Your task to perform on an android device: toggle pop-ups in chrome Image 0: 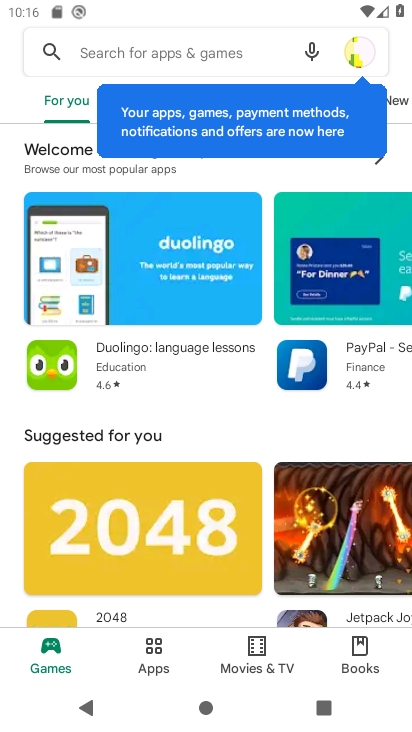
Step 0: press home button
Your task to perform on an android device: toggle pop-ups in chrome Image 1: 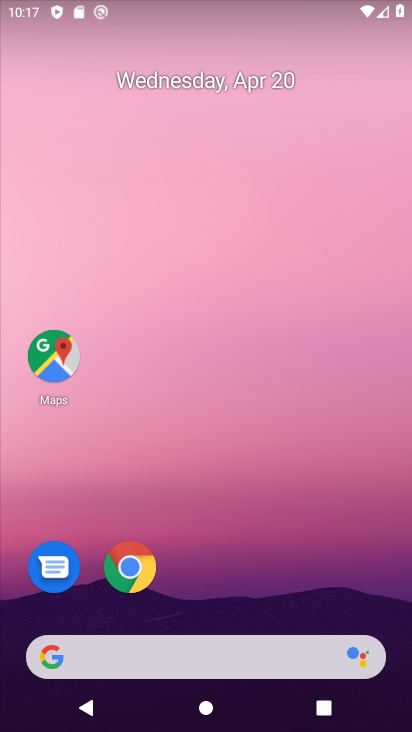
Step 1: click (127, 566)
Your task to perform on an android device: toggle pop-ups in chrome Image 2: 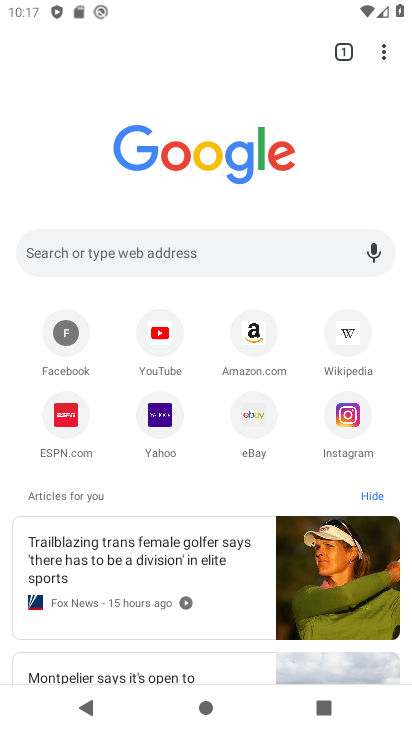
Step 2: click (385, 48)
Your task to perform on an android device: toggle pop-ups in chrome Image 3: 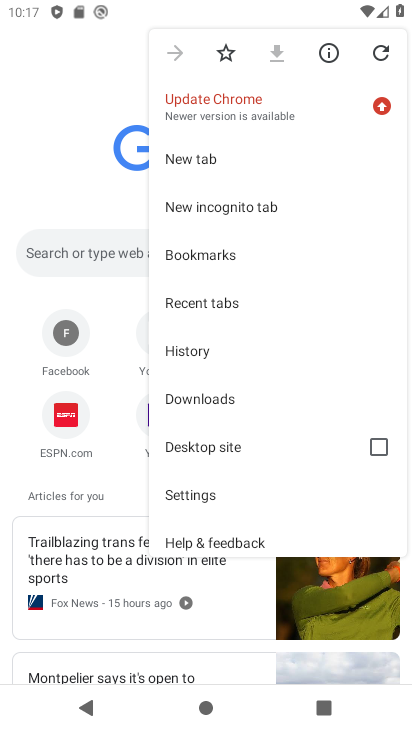
Step 3: click (202, 497)
Your task to perform on an android device: toggle pop-ups in chrome Image 4: 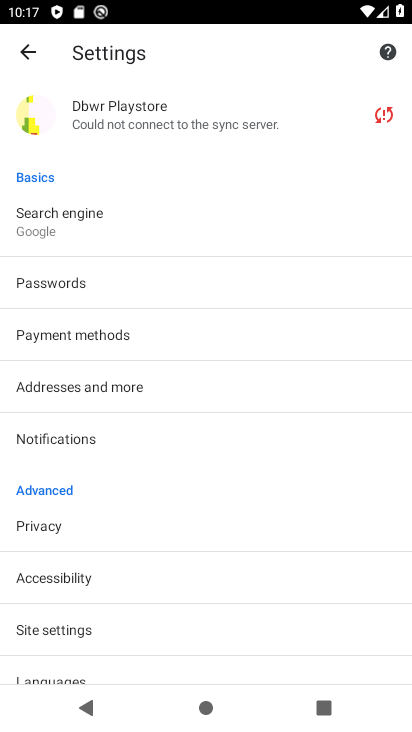
Step 4: click (73, 636)
Your task to perform on an android device: toggle pop-ups in chrome Image 5: 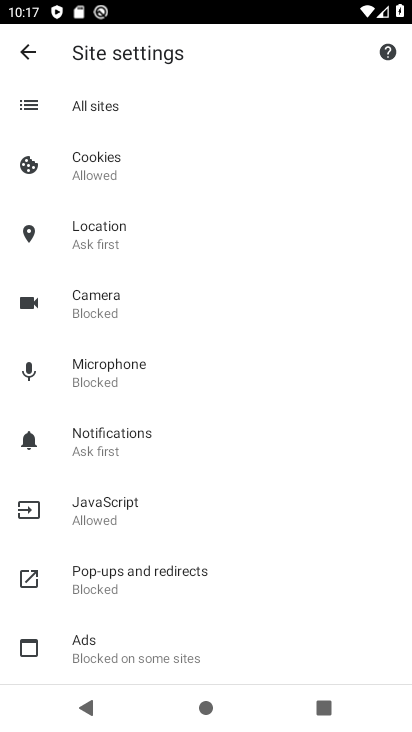
Step 5: click (124, 572)
Your task to perform on an android device: toggle pop-ups in chrome Image 6: 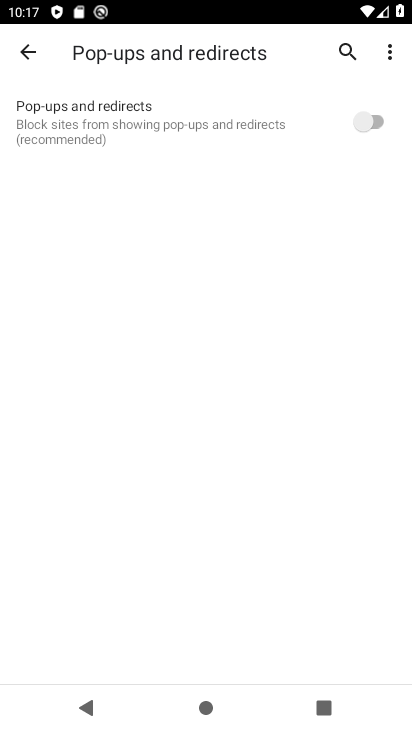
Step 6: click (361, 125)
Your task to perform on an android device: toggle pop-ups in chrome Image 7: 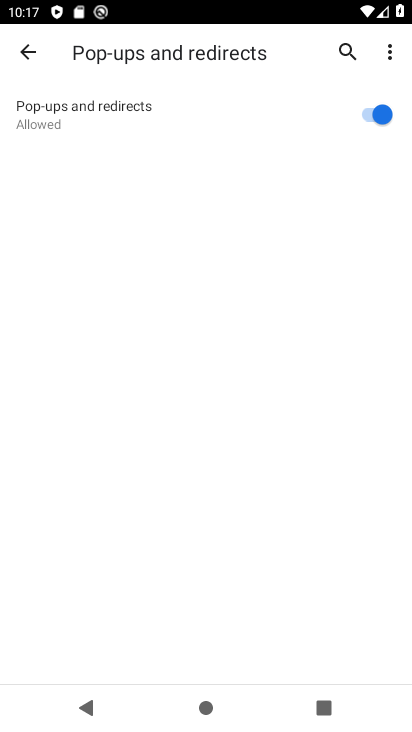
Step 7: task complete